Your task to perform on an android device: What's the weather going to be this weekend? Image 0: 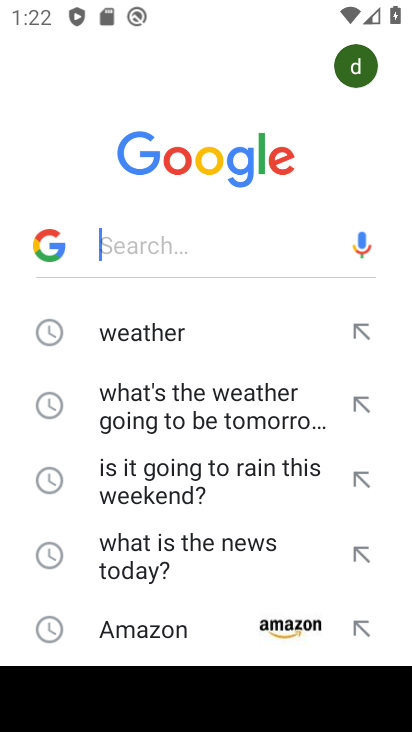
Step 0: task complete